Your task to perform on an android device: turn off wifi Image 0: 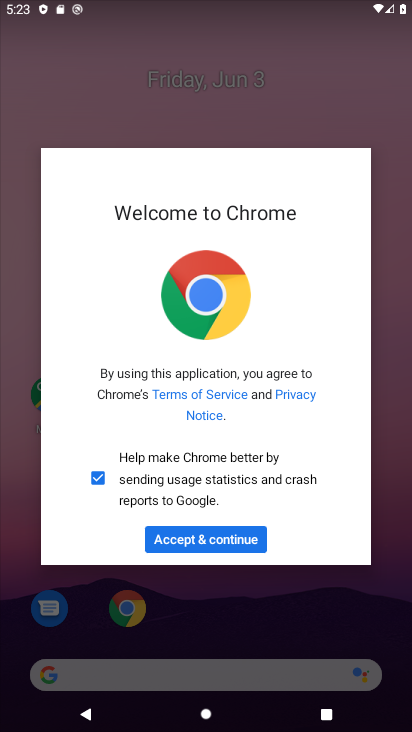
Step 0: press home button
Your task to perform on an android device: turn off wifi Image 1: 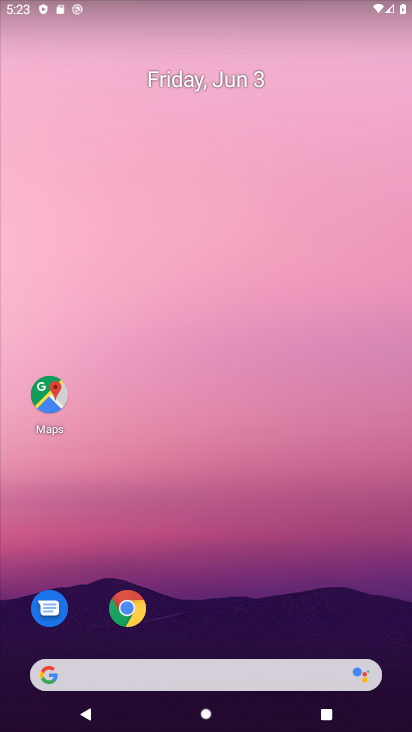
Step 1: drag from (220, 13) to (237, 243)
Your task to perform on an android device: turn off wifi Image 2: 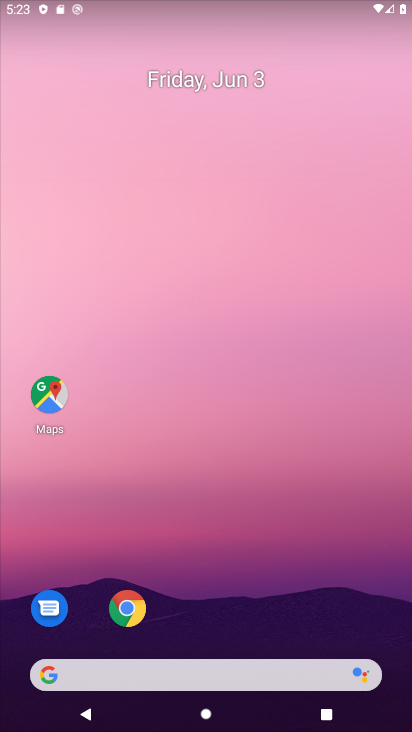
Step 2: click (261, 11)
Your task to perform on an android device: turn off wifi Image 3: 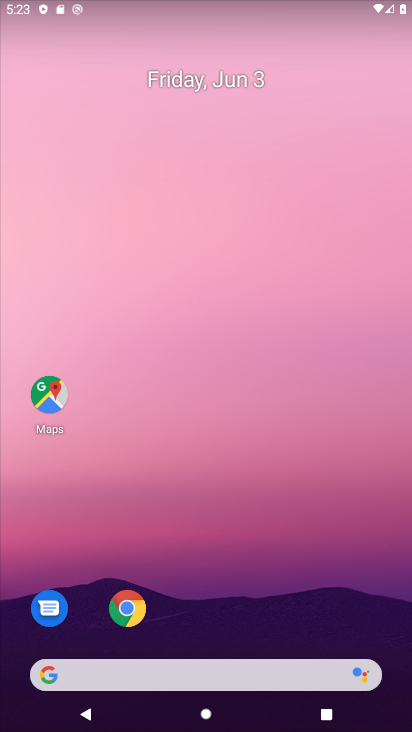
Step 3: drag from (261, 12) to (258, 258)
Your task to perform on an android device: turn off wifi Image 4: 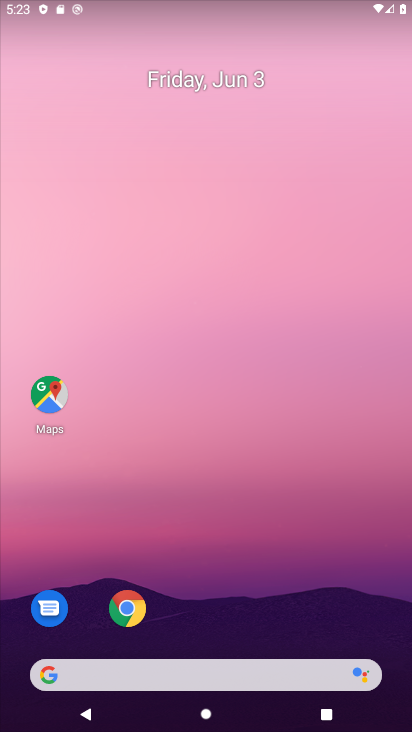
Step 4: drag from (197, 25) to (107, 653)
Your task to perform on an android device: turn off wifi Image 5: 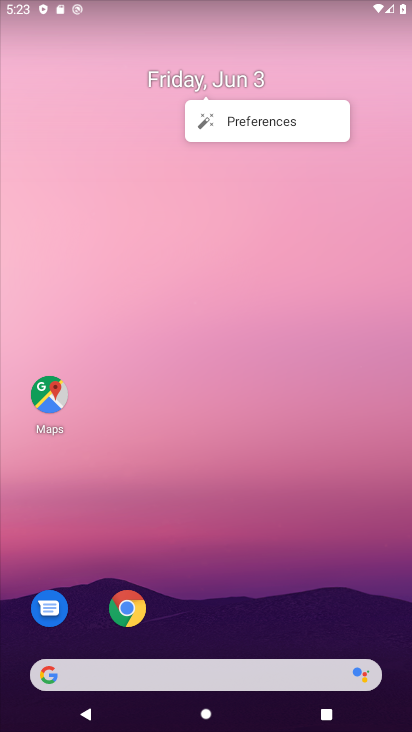
Step 5: click (326, 345)
Your task to perform on an android device: turn off wifi Image 6: 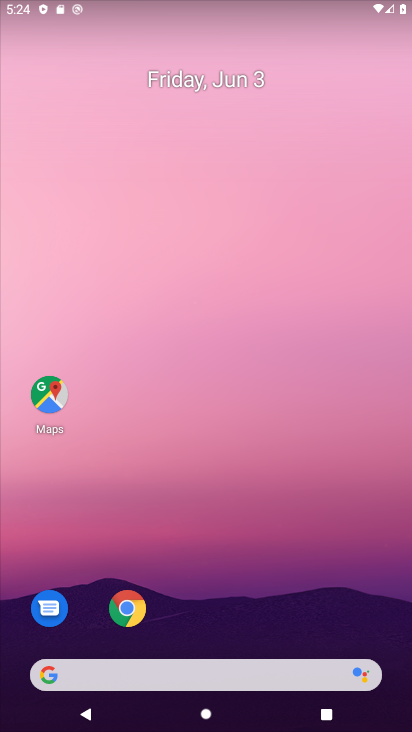
Step 6: drag from (327, 48) to (317, 730)
Your task to perform on an android device: turn off wifi Image 7: 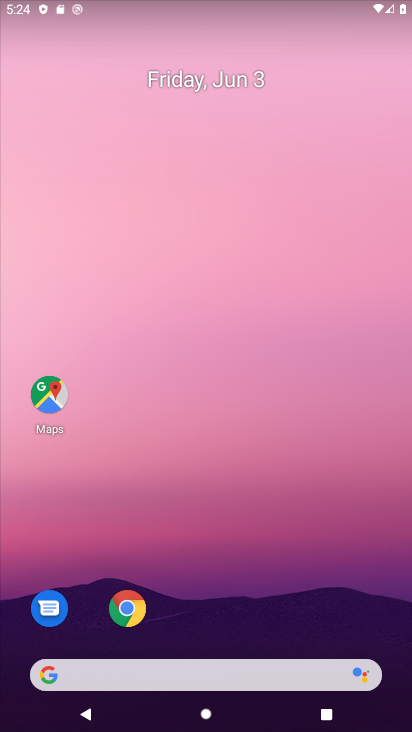
Step 7: drag from (158, 63) to (148, 586)
Your task to perform on an android device: turn off wifi Image 8: 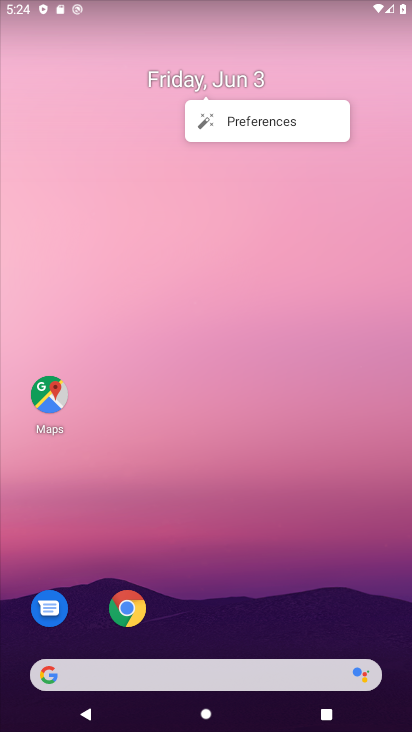
Step 8: click (181, 366)
Your task to perform on an android device: turn off wifi Image 9: 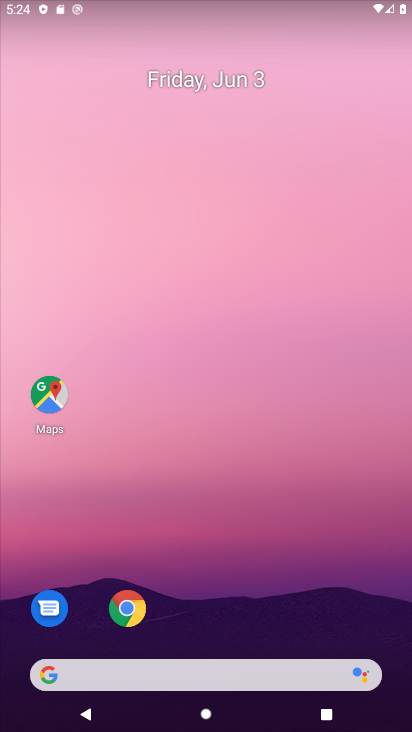
Step 9: drag from (348, 9) to (157, 696)
Your task to perform on an android device: turn off wifi Image 10: 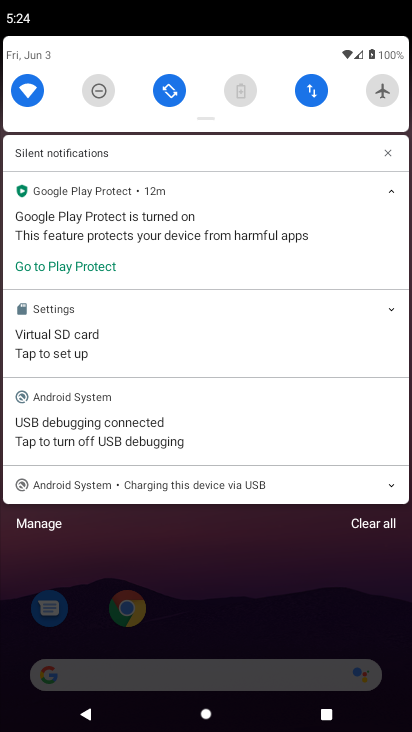
Step 10: click (38, 91)
Your task to perform on an android device: turn off wifi Image 11: 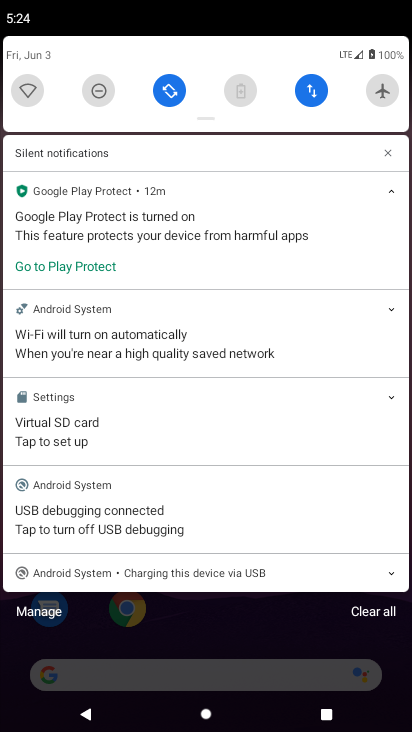
Step 11: task complete